Your task to perform on an android device: turn on javascript in the chrome app Image 0: 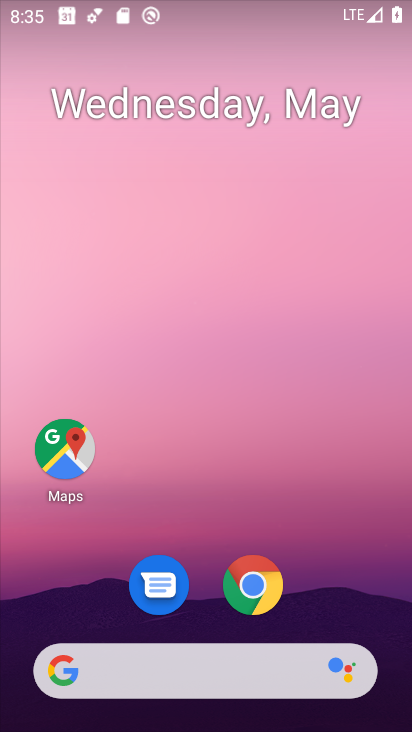
Step 0: click (260, 588)
Your task to perform on an android device: turn on javascript in the chrome app Image 1: 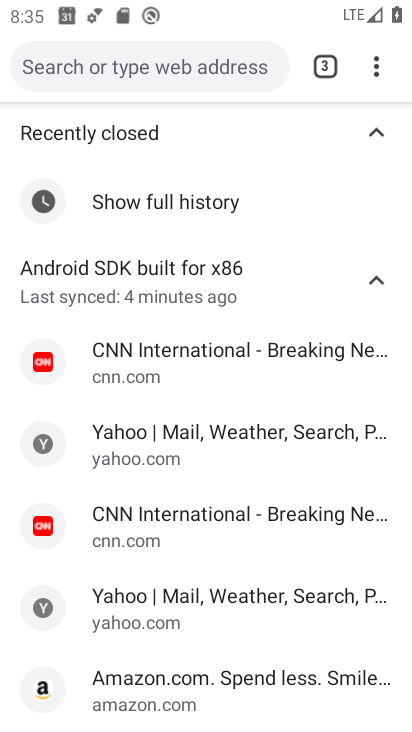
Step 1: click (370, 67)
Your task to perform on an android device: turn on javascript in the chrome app Image 2: 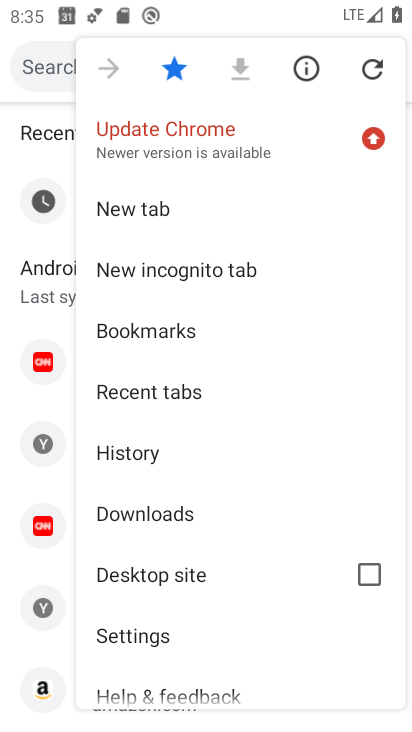
Step 2: click (209, 627)
Your task to perform on an android device: turn on javascript in the chrome app Image 3: 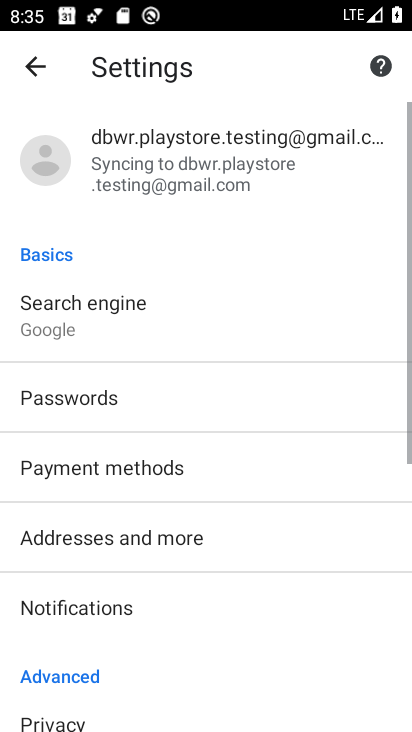
Step 3: drag from (242, 576) to (236, 251)
Your task to perform on an android device: turn on javascript in the chrome app Image 4: 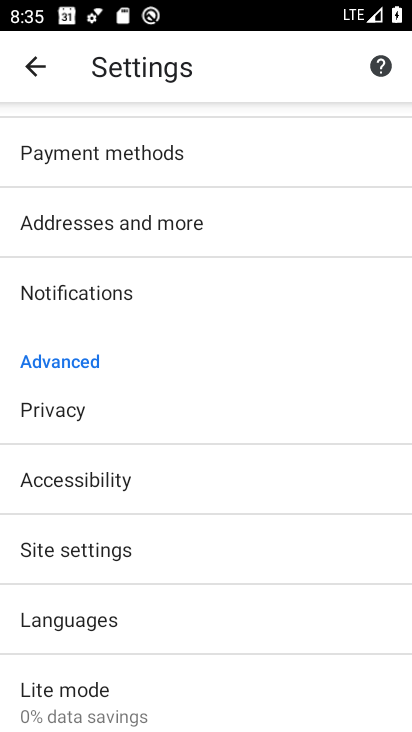
Step 4: click (199, 546)
Your task to perform on an android device: turn on javascript in the chrome app Image 5: 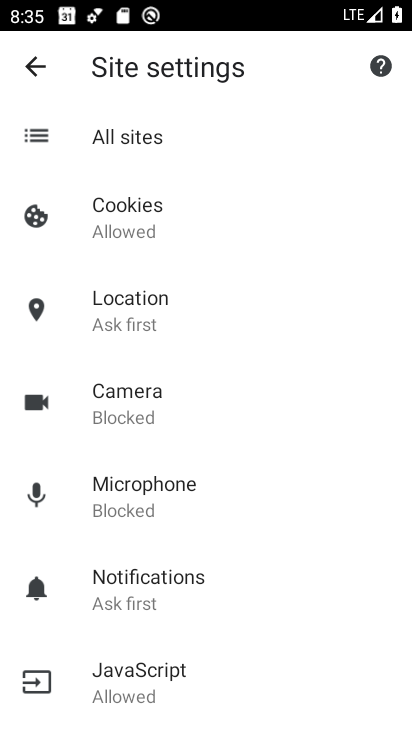
Step 5: click (233, 686)
Your task to perform on an android device: turn on javascript in the chrome app Image 6: 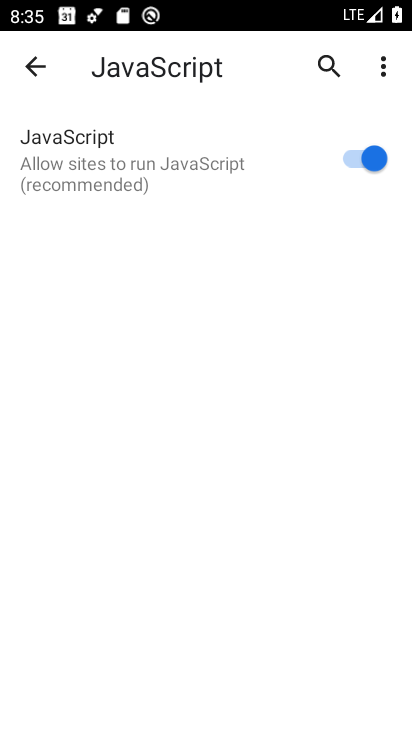
Step 6: task complete